Your task to perform on an android device: Open battery settings Image 0: 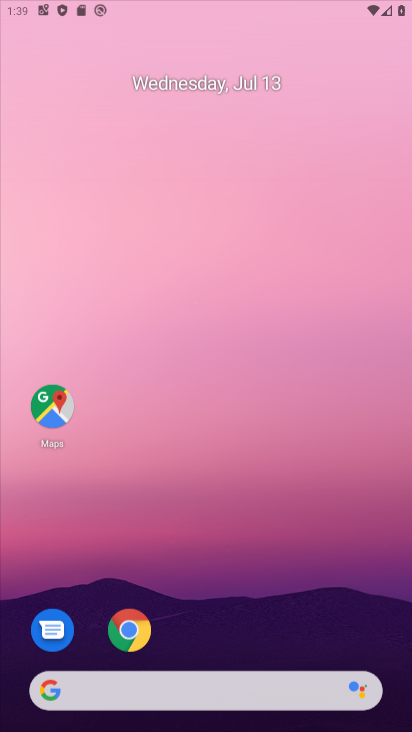
Step 0: press home button
Your task to perform on an android device: Open battery settings Image 1: 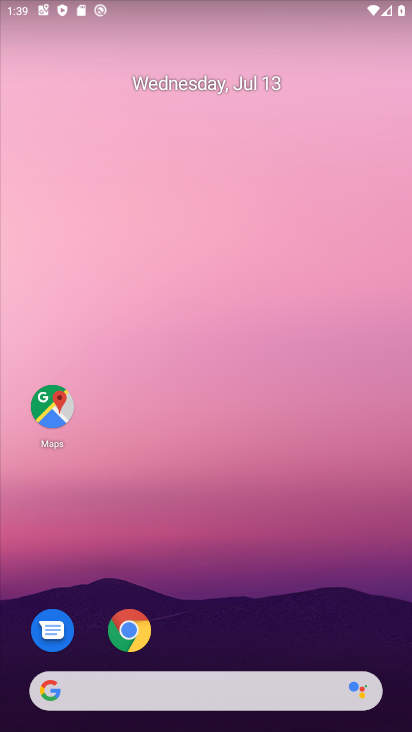
Step 1: drag from (360, 629) to (371, 187)
Your task to perform on an android device: Open battery settings Image 2: 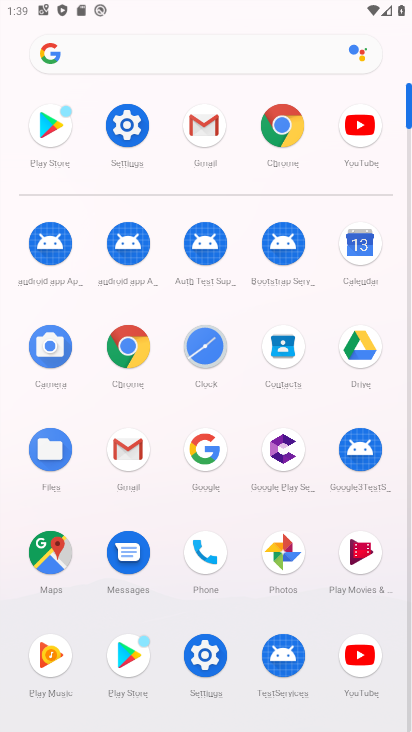
Step 2: click (201, 649)
Your task to perform on an android device: Open battery settings Image 3: 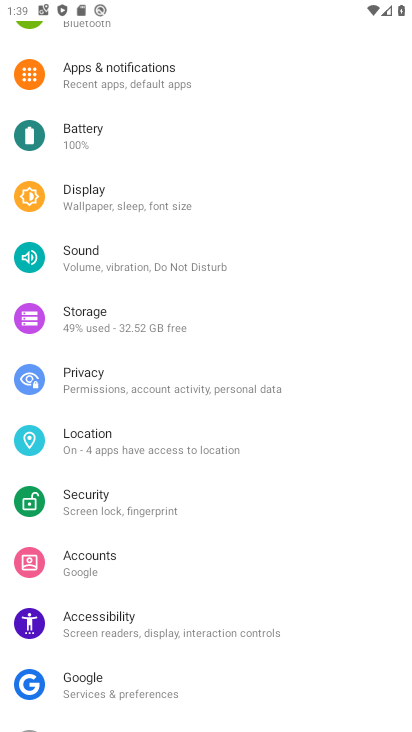
Step 3: drag from (326, 559) to (343, 443)
Your task to perform on an android device: Open battery settings Image 4: 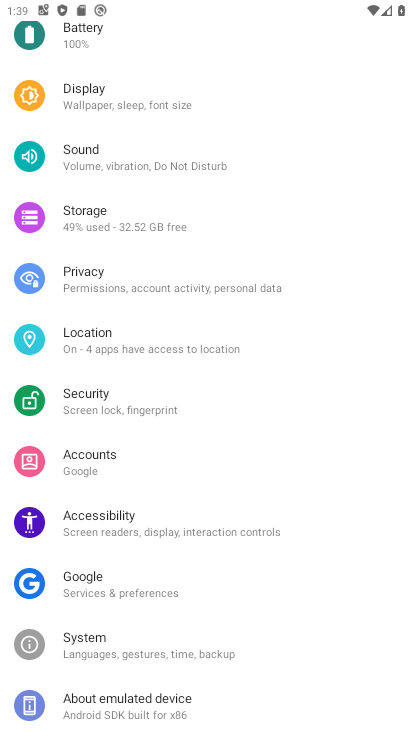
Step 4: drag from (349, 577) to (350, 461)
Your task to perform on an android device: Open battery settings Image 5: 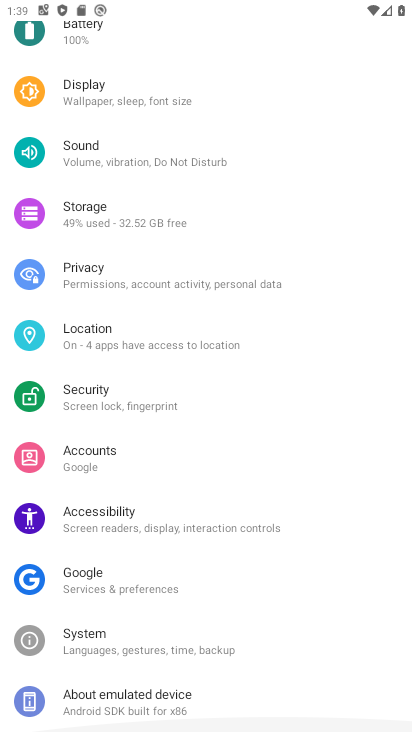
Step 5: drag from (349, 345) to (342, 420)
Your task to perform on an android device: Open battery settings Image 6: 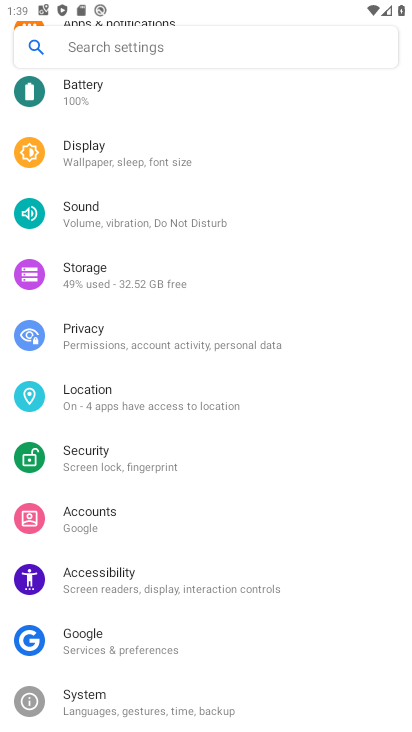
Step 6: drag from (345, 335) to (345, 421)
Your task to perform on an android device: Open battery settings Image 7: 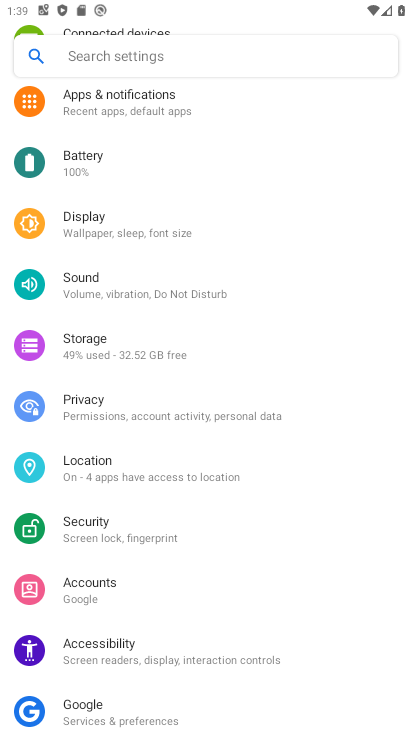
Step 7: drag from (345, 320) to (343, 437)
Your task to perform on an android device: Open battery settings Image 8: 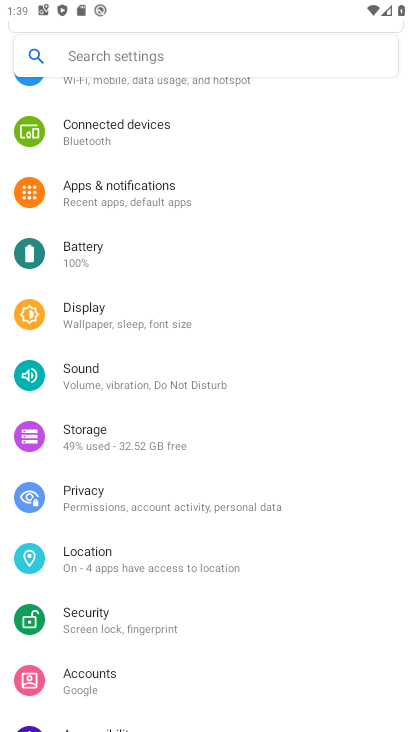
Step 8: drag from (340, 300) to (345, 440)
Your task to perform on an android device: Open battery settings Image 9: 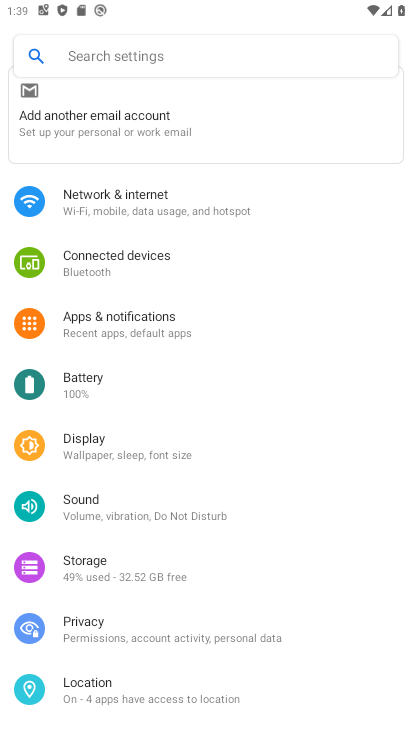
Step 9: drag from (362, 307) to (363, 468)
Your task to perform on an android device: Open battery settings Image 10: 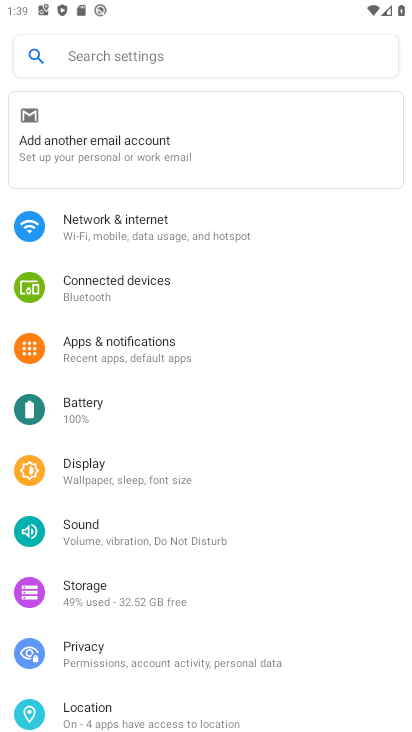
Step 10: click (157, 421)
Your task to perform on an android device: Open battery settings Image 11: 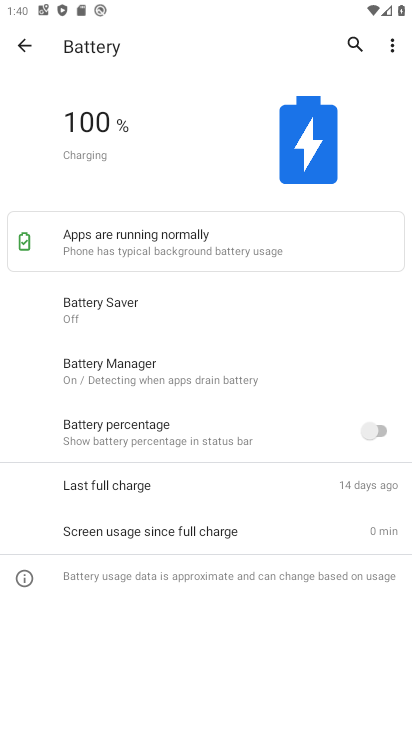
Step 11: task complete